Your task to perform on an android device: Go to display settings Image 0: 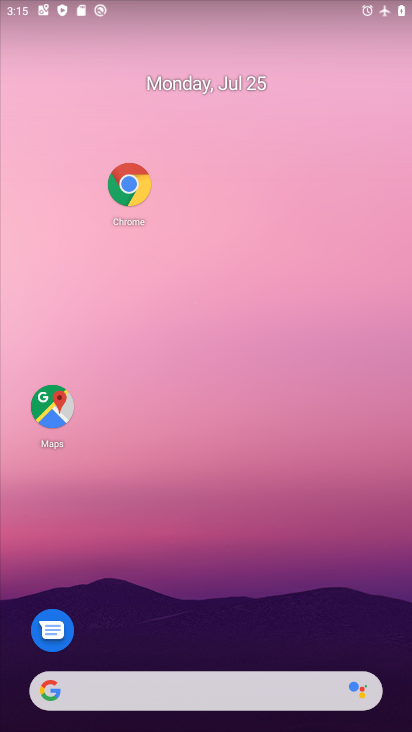
Step 0: drag from (231, 645) to (132, 12)
Your task to perform on an android device: Go to display settings Image 1: 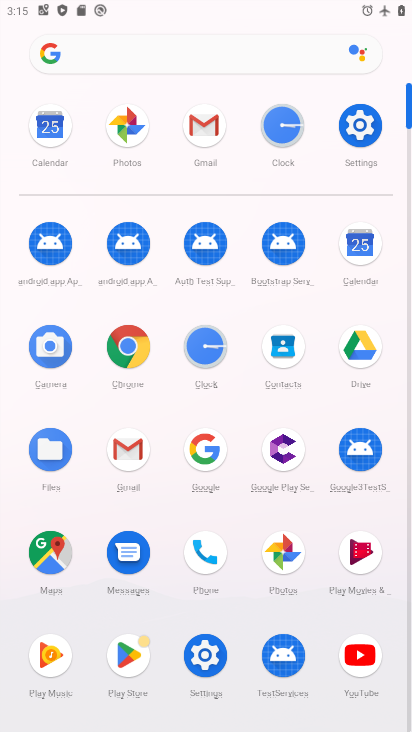
Step 1: click (362, 131)
Your task to perform on an android device: Go to display settings Image 2: 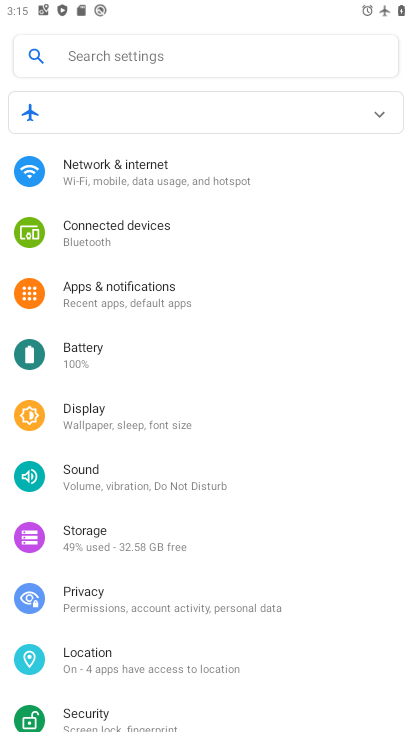
Step 2: click (181, 412)
Your task to perform on an android device: Go to display settings Image 3: 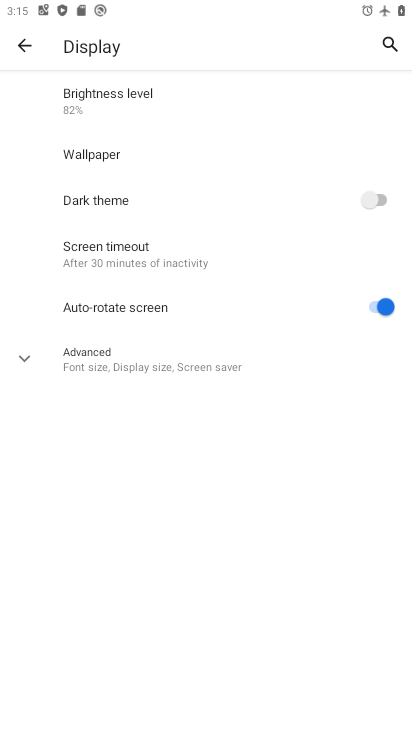
Step 3: task complete